Your task to perform on an android device: change the clock display to show seconds Image 0: 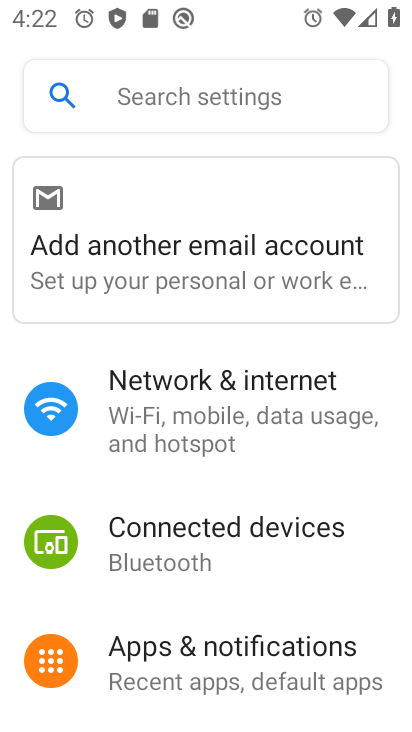
Step 0: drag from (202, 635) to (219, 439)
Your task to perform on an android device: change the clock display to show seconds Image 1: 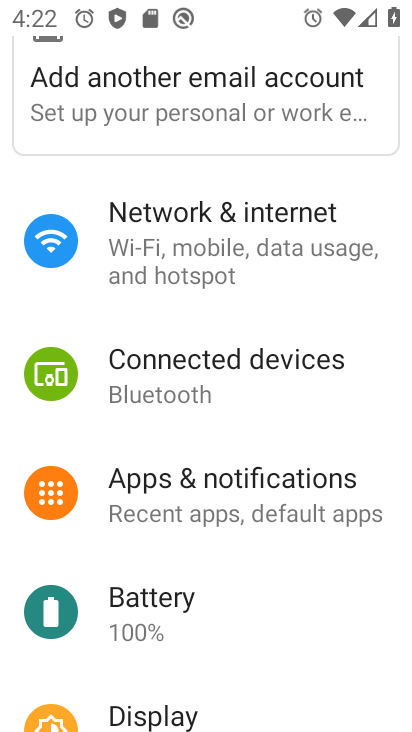
Step 1: press home button
Your task to perform on an android device: change the clock display to show seconds Image 2: 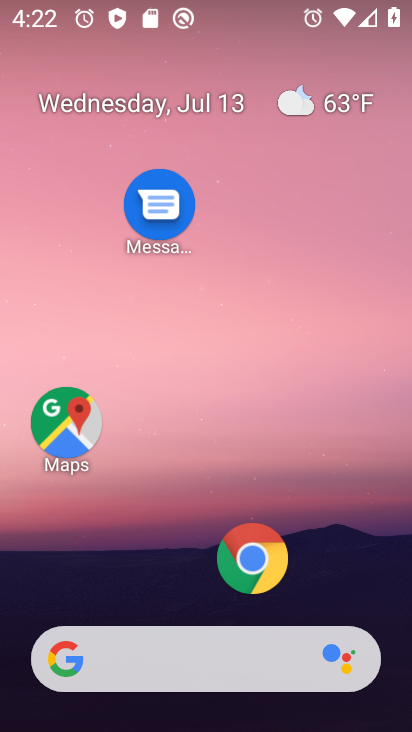
Step 2: drag from (177, 625) to (177, 223)
Your task to perform on an android device: change the clock display to show seconds Image 3: 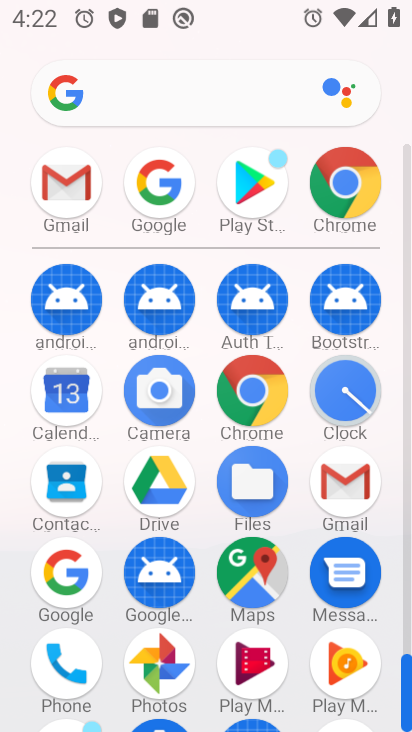
Step 3: click (331, 403)
Your task to perform on an android device: change the clock display to show seconds Image 4: 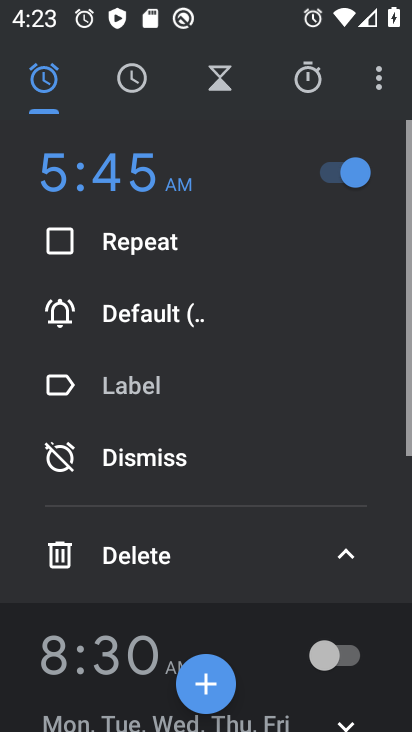
Step 4: click (372, 88)
Your task to perform on an android device: change the clock display to show seconds Image 5: 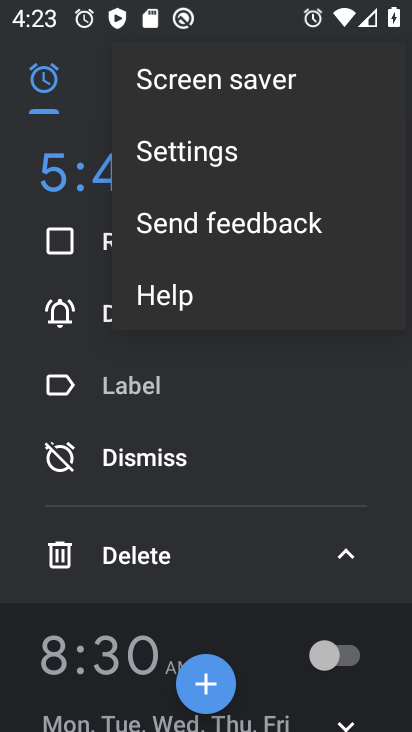
Step 5: click (166, 156)
Your task to perform on an android device: change the clock display to show seconds Image 6: 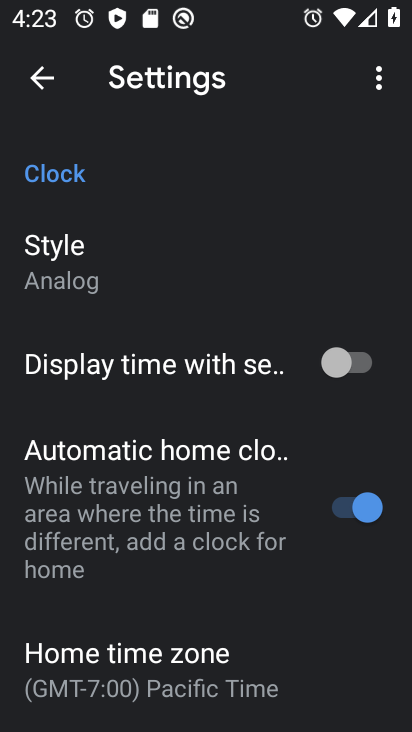
Step 6: click (347, 362)
Your task to perform on an android device: change the clock display to show seconds Image 7: 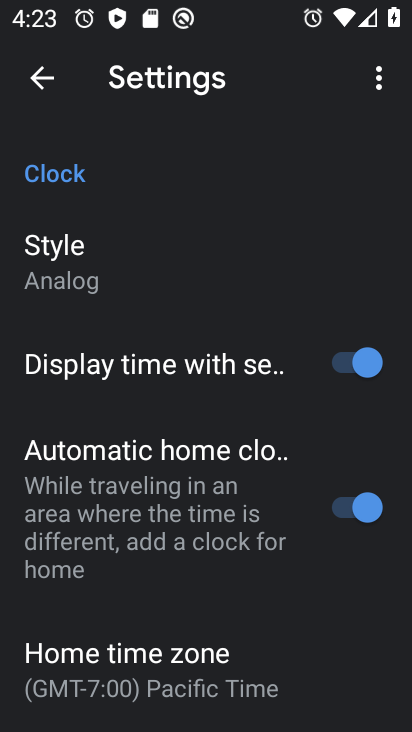
Step 7: task complete